Your task to perform on an android device: change notifications settings Image 0: 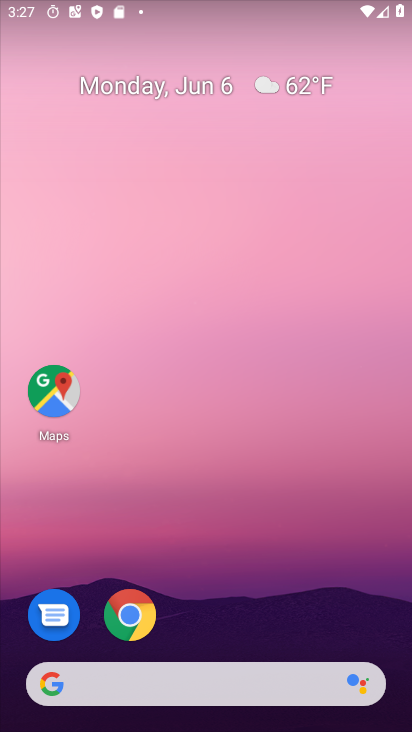
Step 0: drag from (259, 674) to (297, 41)
Your task to perform on an android device: change notifications settings Image 1: 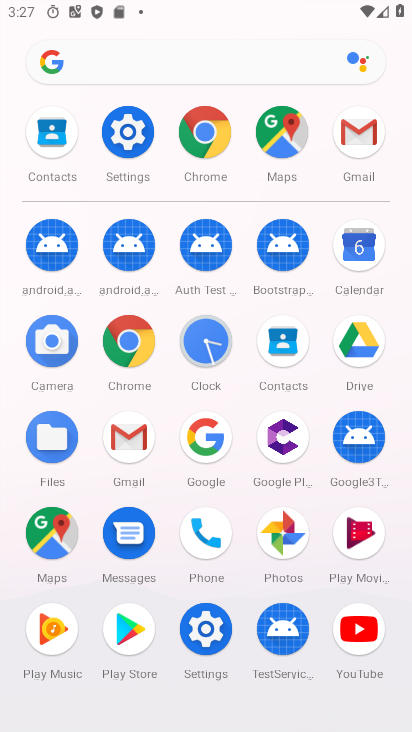
Step 1: click (116, 134)
Your task to perform on an android device: change notifications settings Image 2: 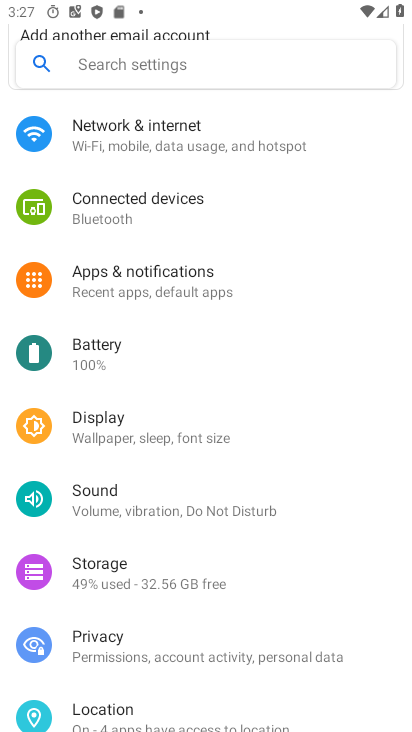
Step 2: click (185, 289)
Your task to perform on an android device: change notifications settings Image 3: 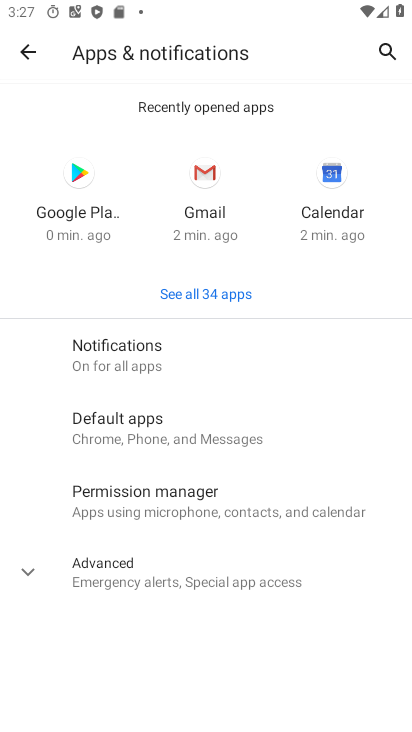
Step 3: click (137, 371)
Your task to perform on an android device: change notifications settings Image 4: 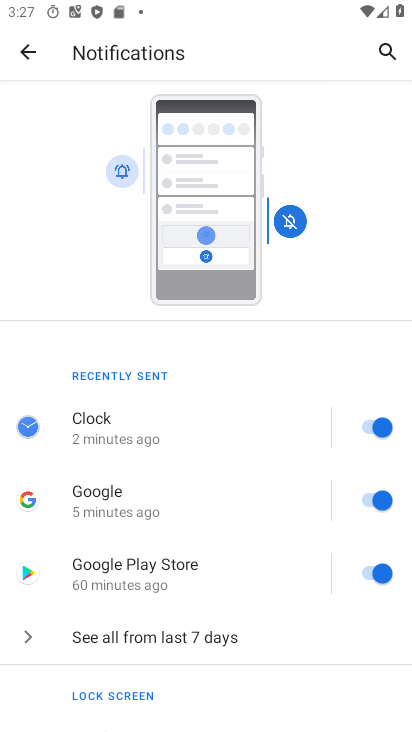
Step 4: click (360, 502)
Your task to perform on an android device: change notifications settings Image 5: 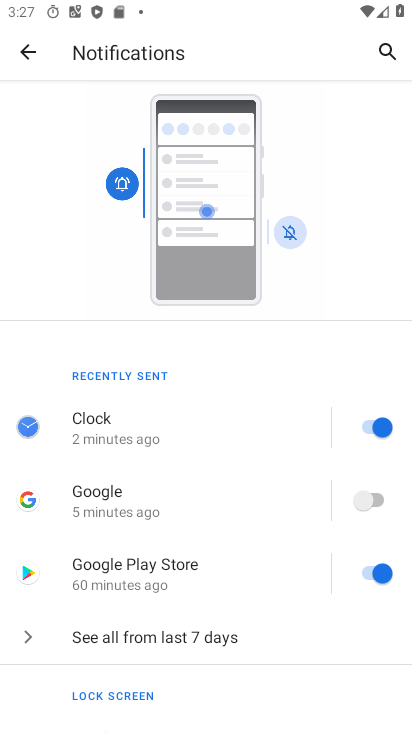
Step 5: task complete